Your task to perform on an android device: move a message to another label in the gmail app Image 0: 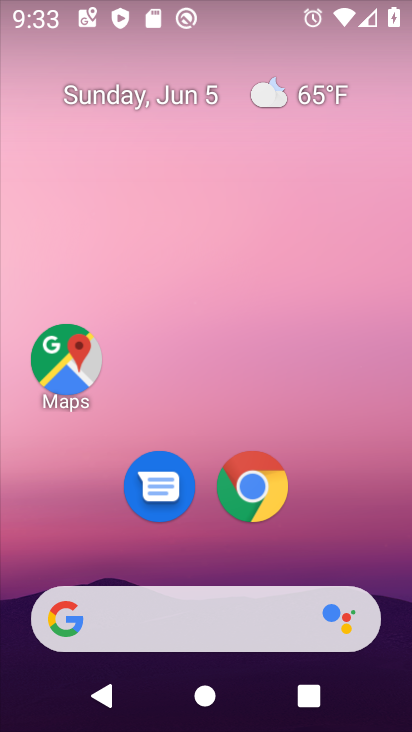
Step 0: drag from (305, 517) to (317, 68)
Your task to perform on an android device: move a message to another label in the gmail app Image 1: 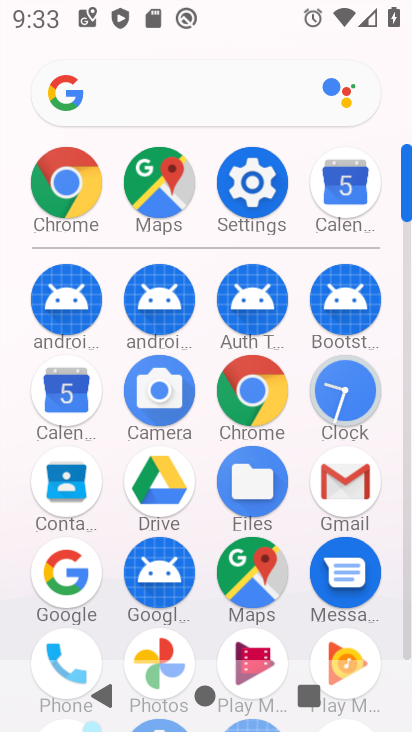
Step 1: click (320, 489)
Your task to perform on an android device: move a message to another label in the gmail app Image 2: 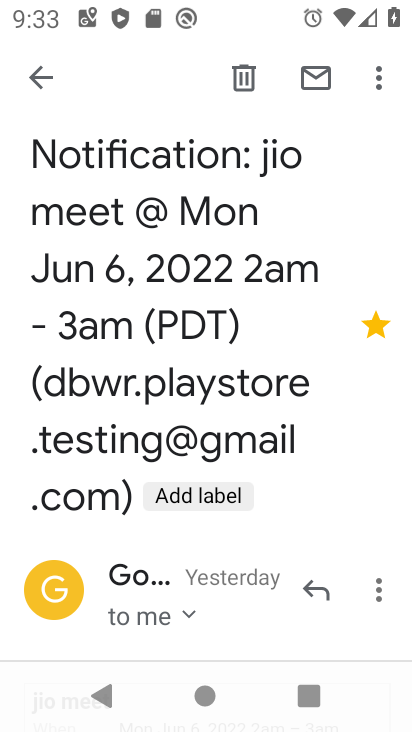
Step 2: click (27, 76)
Your task to perform on an android device: move a message to another label in the gmail app Image 3: 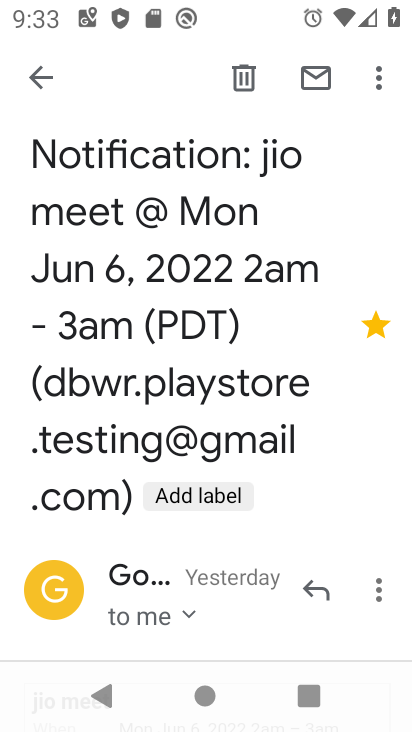
Step 3: click (49, 76)
Your task to perform on an android device: move a message to another label in the gmail app Image 4: 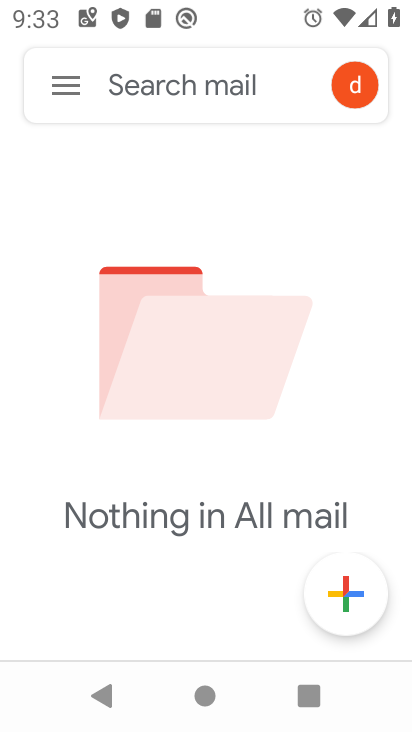
Step 4: click (41, 91)
Your task to perform on an android device: move a message to another label in the gmail app Image 5: 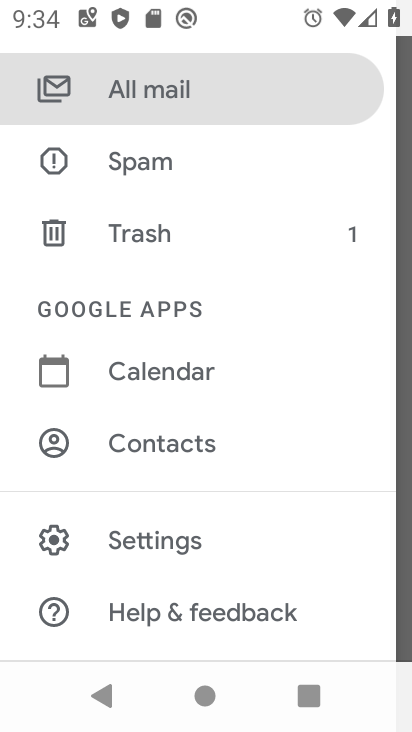
Step 5: drag from (262, 196) to (262, 433)
Your task to perform on an android device: move a message to another label in the gmail app Image 6: 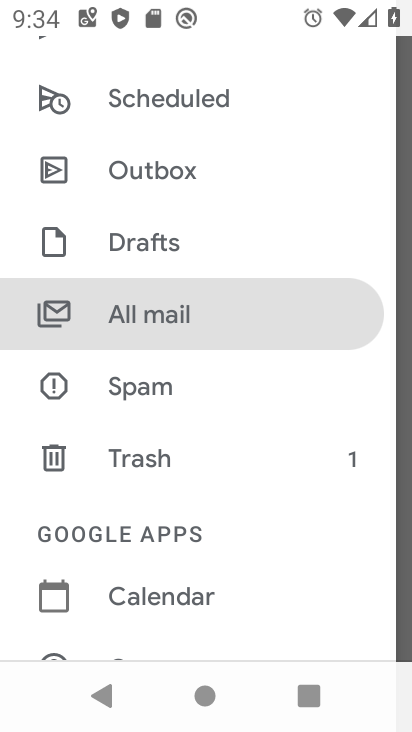
Step 6: drag from (267, 168) to (231, 607)
Your task to perform on an android device: move a message to another label in the gmail app Image 7: 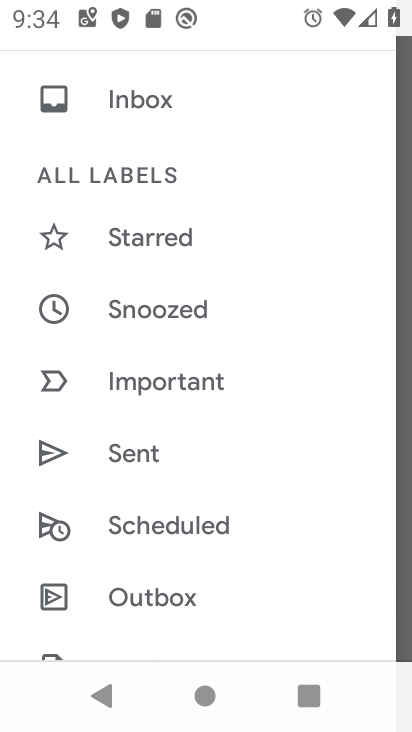
Step 7: drag from (251, 127) to (247, 583)
Your task to perform on an android device: move a message to another label in the gmail app Image 8: 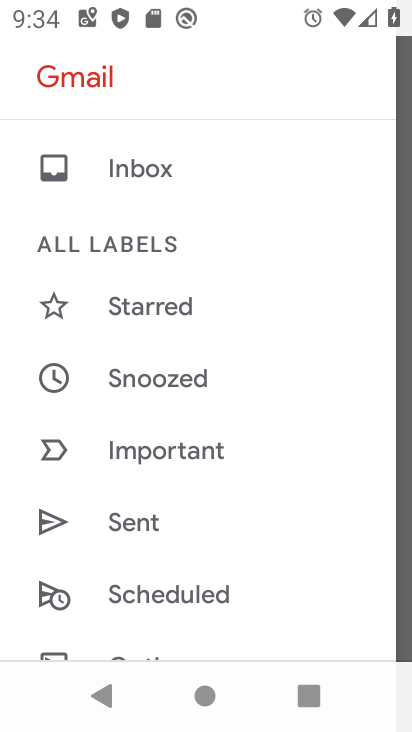
Step 8: drag from (210, 537) to (279, 202)
Your task to perform on an android device: move a message to another label in the gmail app Image 9: 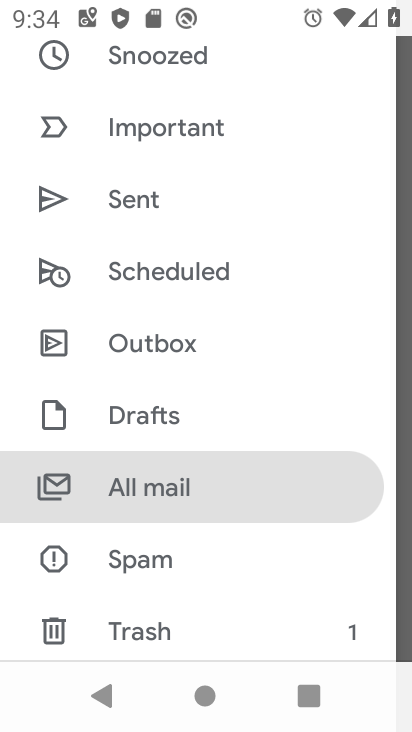
Step 9: click (226, 479)
Your task to perform on an android device: move a message to another label in the gmail app Image 10: 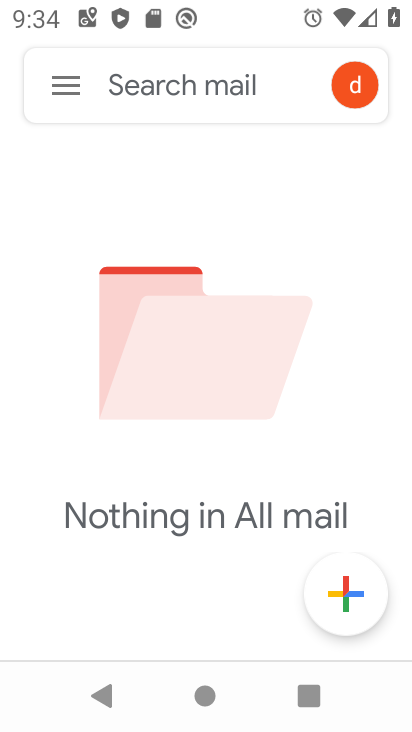
Step 10: task complete